Your task to perform on an android device: Open Google Image 0: 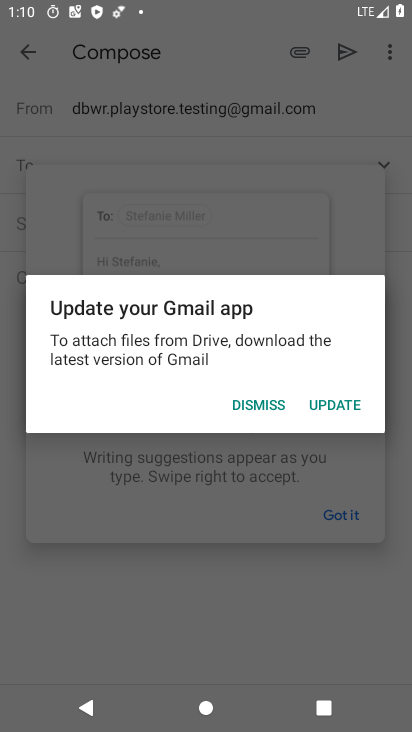
Step 0: press home button
Your task to perform on an android device: Open Google Image 1: 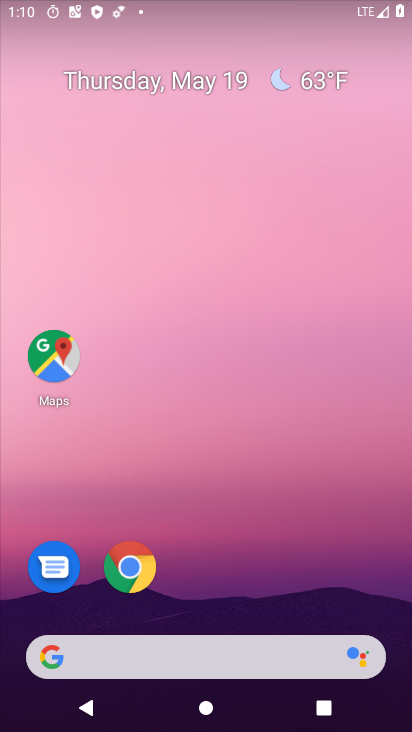
Step 1: drag from (165, 657) to (313, 161)
Your task to perform on an android device: Open Google Image 2: 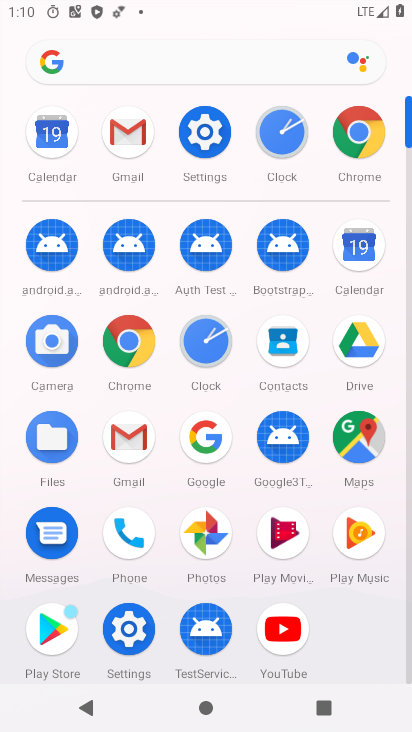
Step 2: click (214, 443)
Your task to perform on an android device: Open Google Image 3: 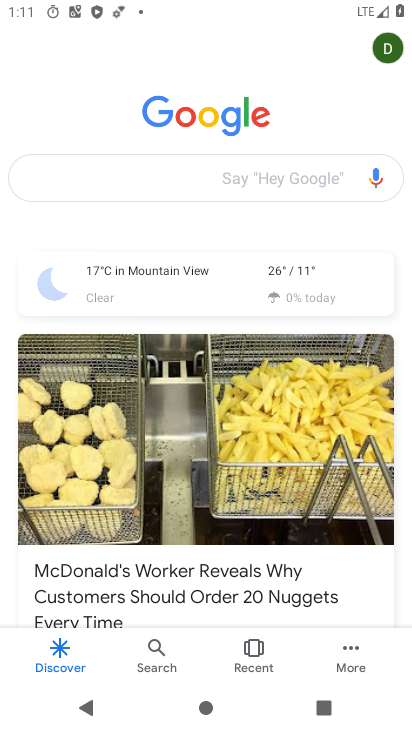
Step 3: task complete